Your task to perform on an android device: install app "Calculator" Image 0: 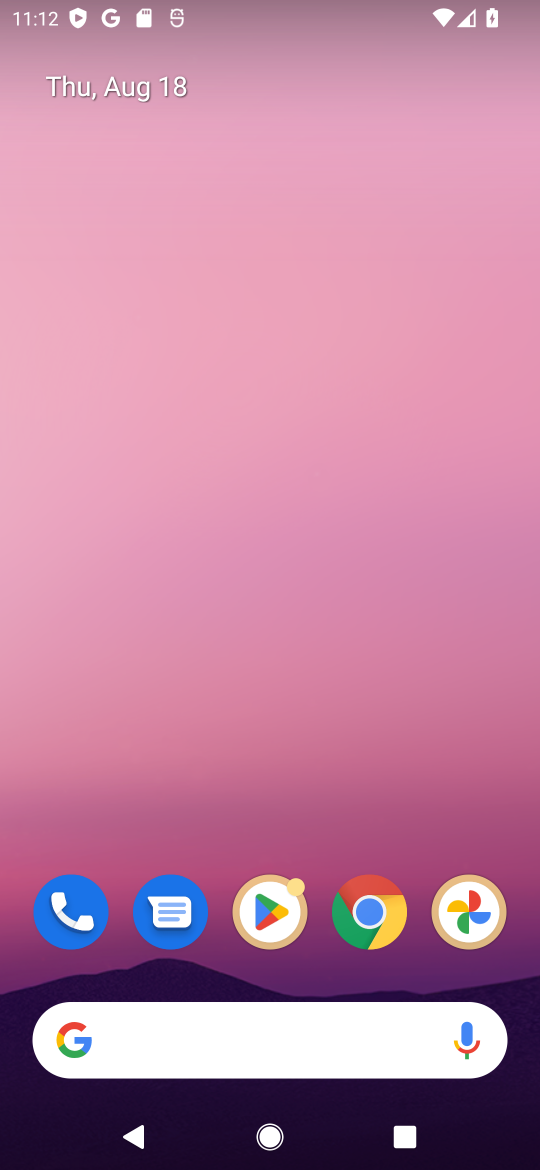
Step 0: click (281, 914)
Your task to perform on an android device: install app "Calculator" Image 1: 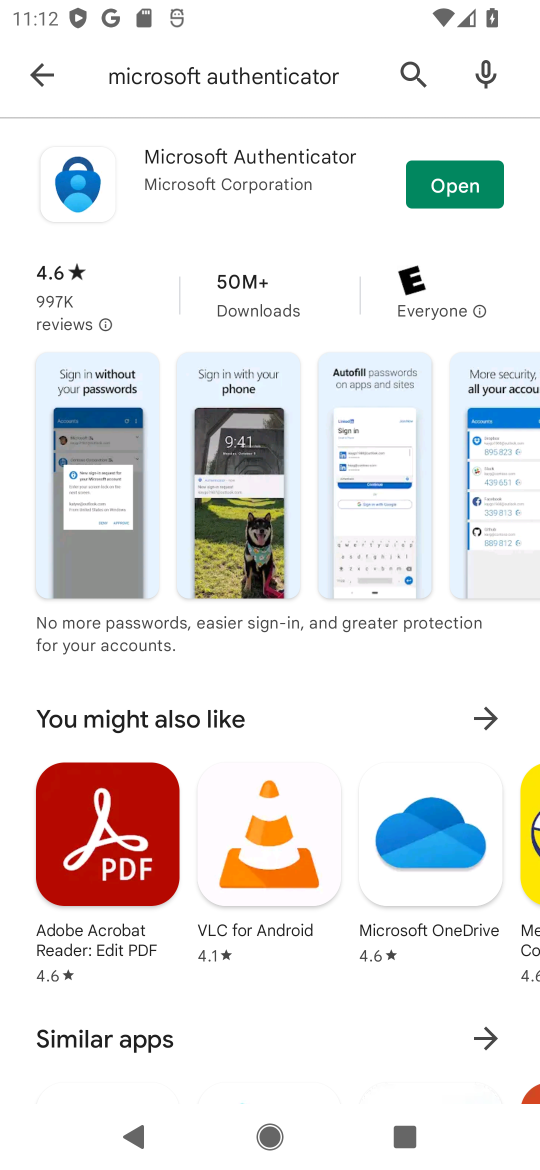
Step 1: click (391, 76)
Your task to perform on an android device: install app "Calculator" Image 2: 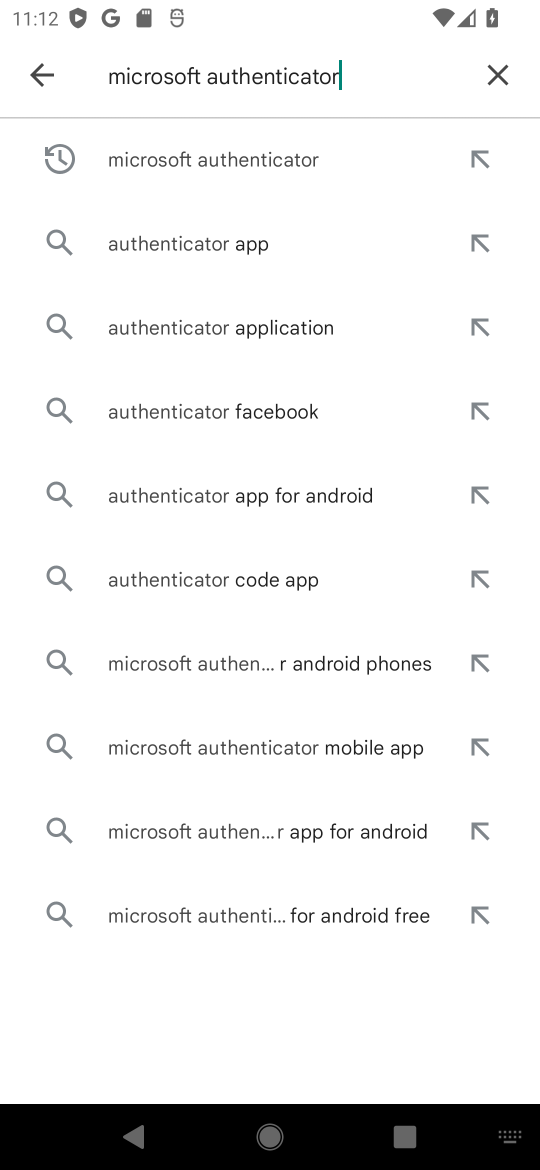
Step 2: click (511, 83)
Your task to perform on an android device: install app "Calculator" Image 3: 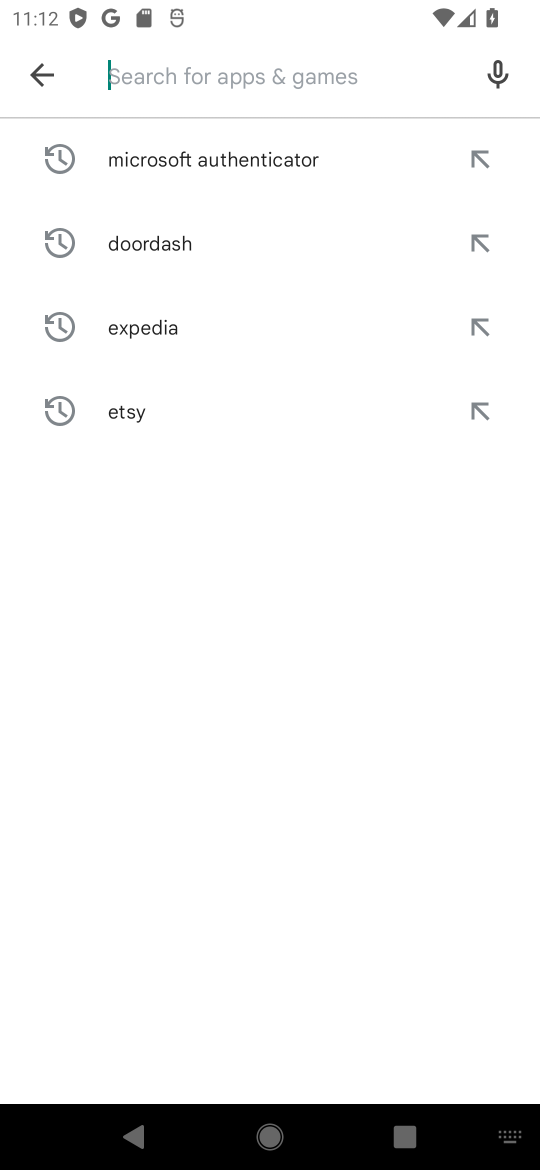
Step 3: click (172, 65)
Your task to perform on an android device: install app "Calculator" Image 4: 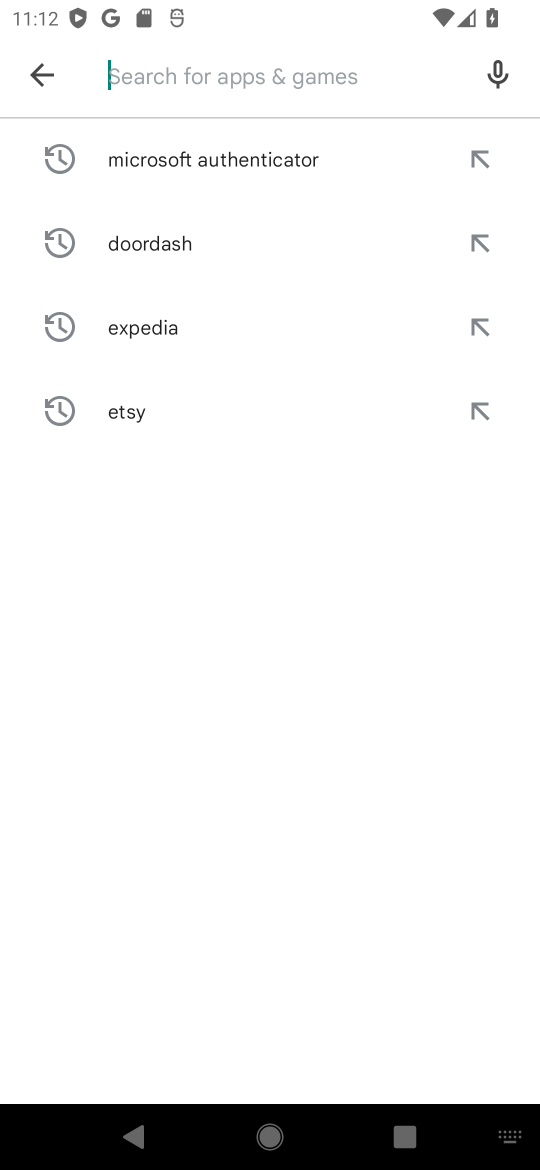
Step 4: type "Calculator"
Your task to perform on an android device: install app "Calculator" Image 5: 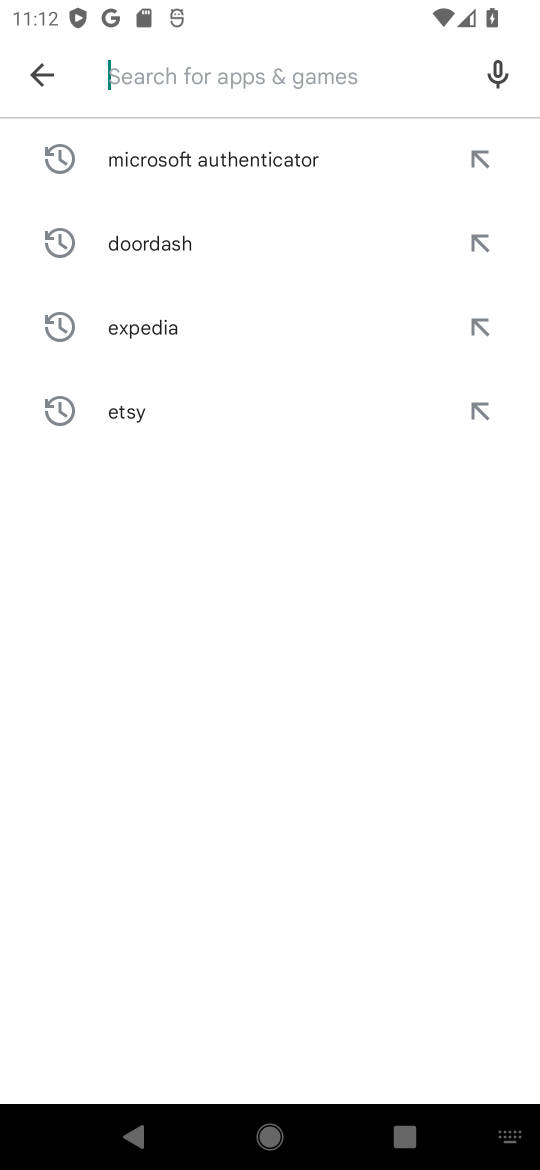
Step 5: click (253, 598)
Your task to perform on an android device: install app "Calculator" Image 6: 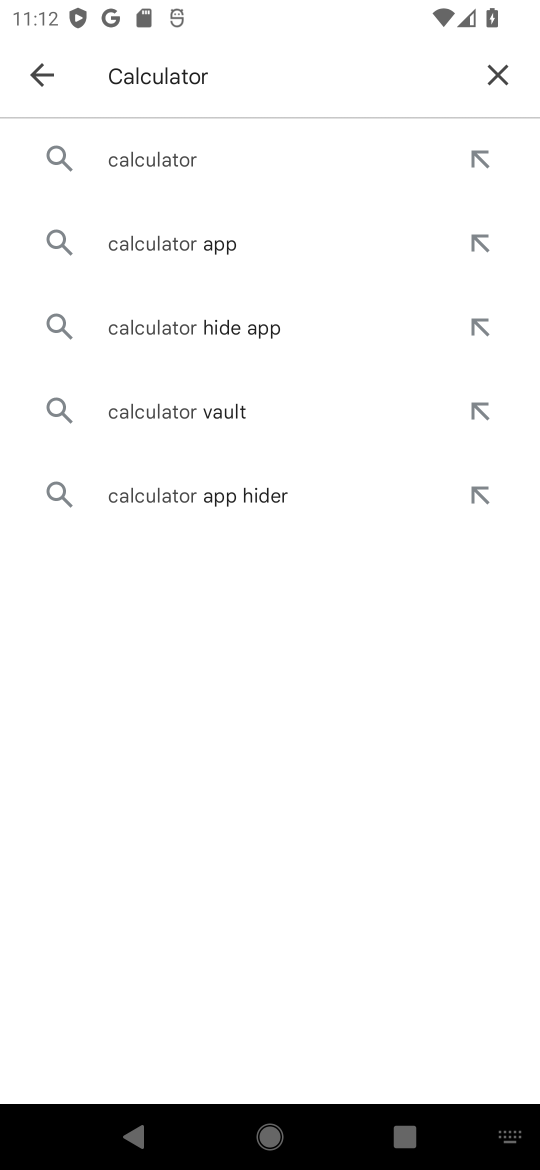
Step 6: click (150, 175)
Your task to perform on an android device: install app "Calculator" Image 7: 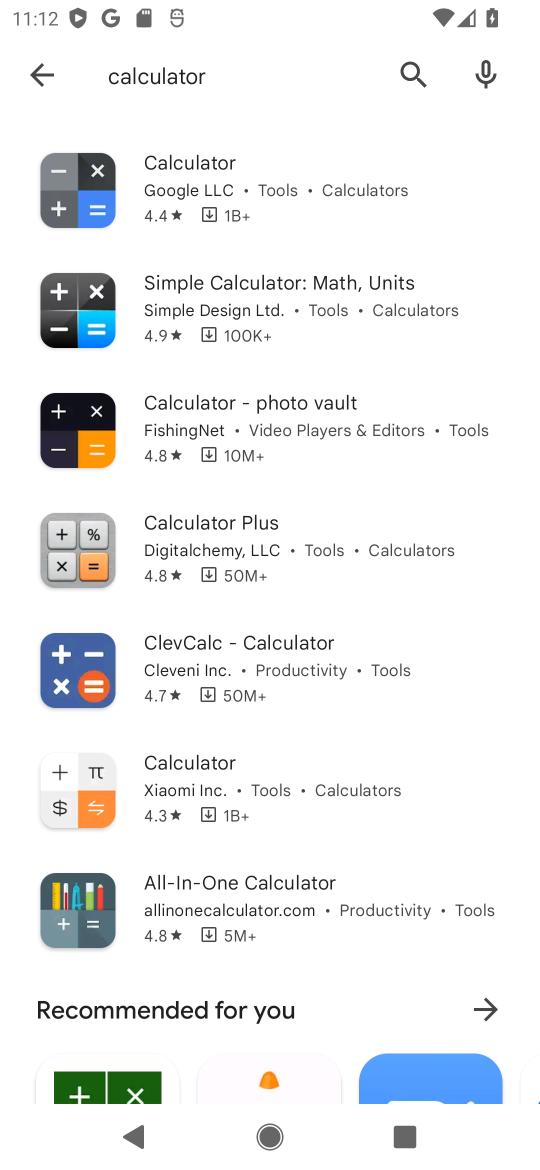
Step 7: click (258, 201)
Your task to perform on an android device: install app "Calculator" Image 8: 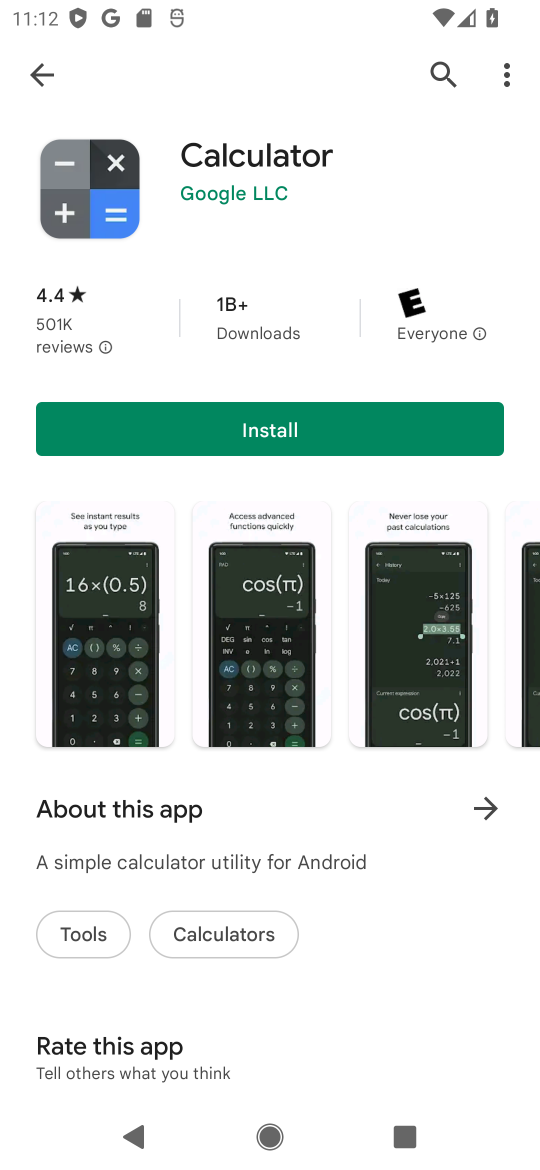
Step 8: click (267, 430)
Your task to perform on an android device: install app "Calculator" Image 9: 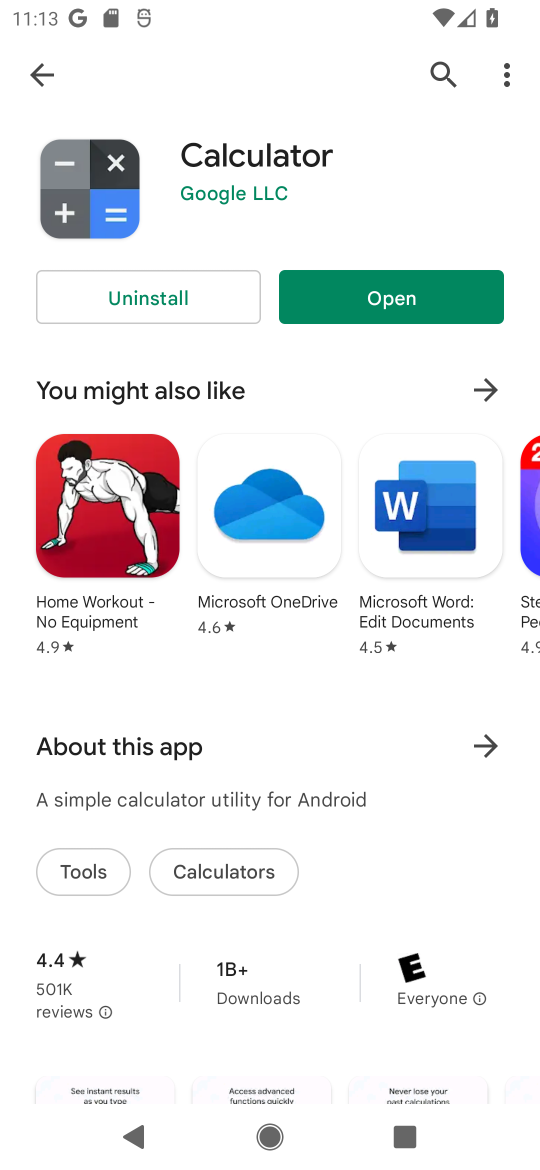
Step 9: task complete